Your task to perform on an android device: Go to eBay Image 0: 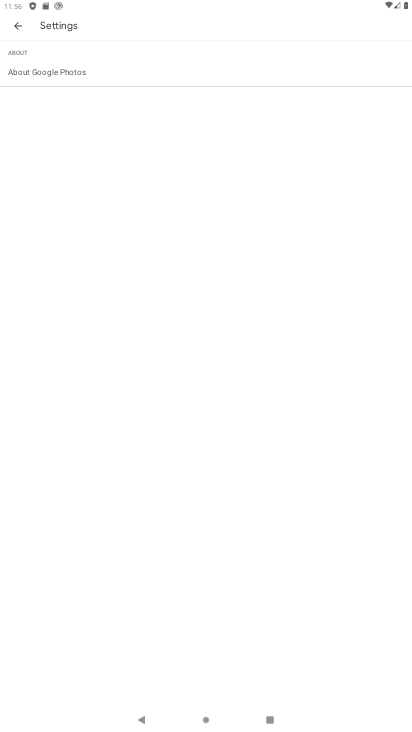
Step 0: press home button
Your task to perform on an android device: Go to eBay Image 1: 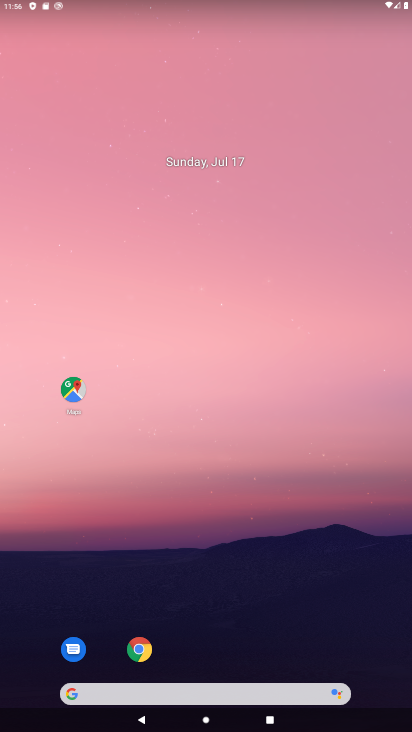
Step 1: click (119, 685)
Your task to perform on an android device: Go to eBay Image 2: 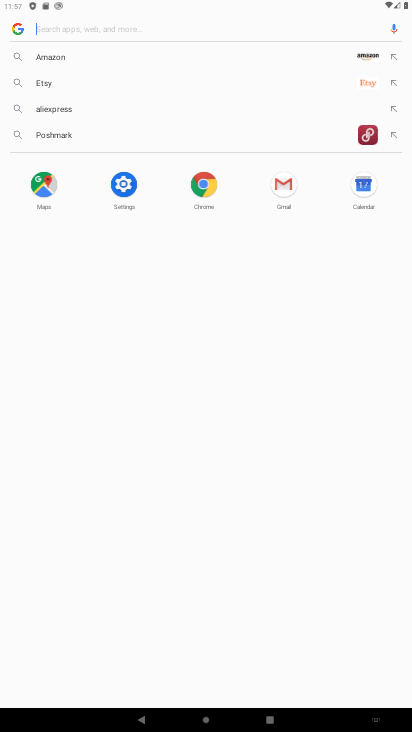
Step 2: type "eBay"
Your task to perform on an android device: Go to eBay Image 3: 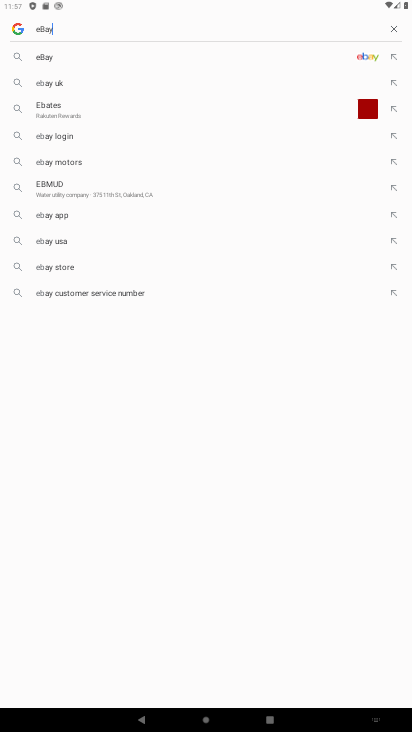
Step 3: type ""
Your task to perform on an android device: Go to eBay Image 4: 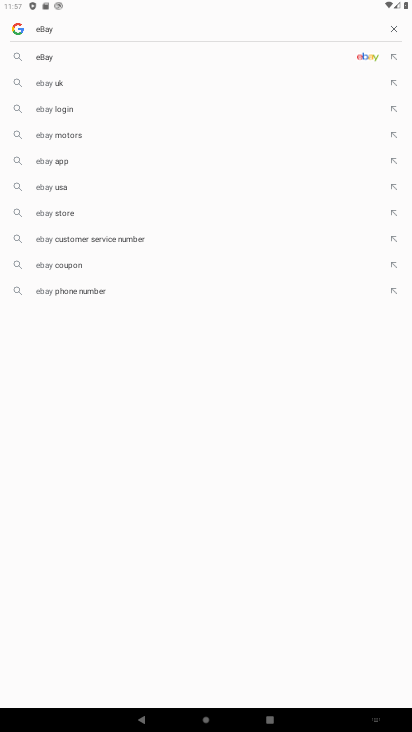
Step 4: click (40, 57)
Your task to perform on an android device: Go to eBay Image 5: 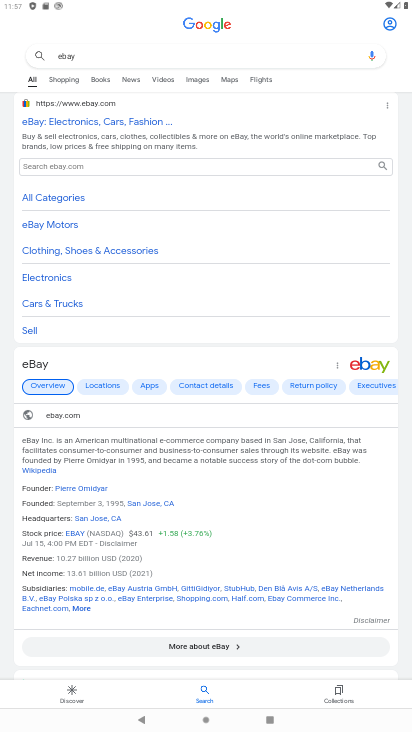
Step 5: task complete